Your task to perform on an android device: Search for Italian restaurants on Maps Image 0: 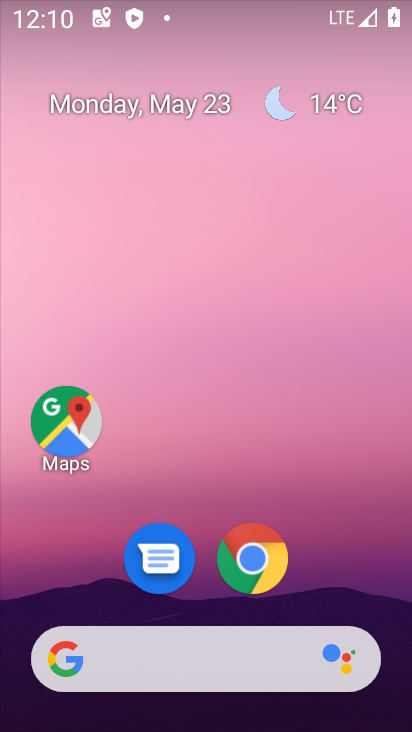
Step 0: click (62, 424)
Your task to perform on an android device: Search for Italian restaurants on Maps Image 1: 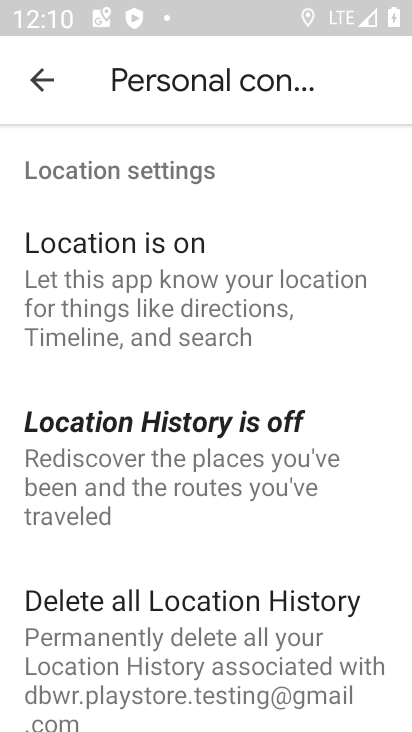
Step 1: click (34, 81)
Your task to perform on an android device: Search for Italian restaurants on Maps Image 2: 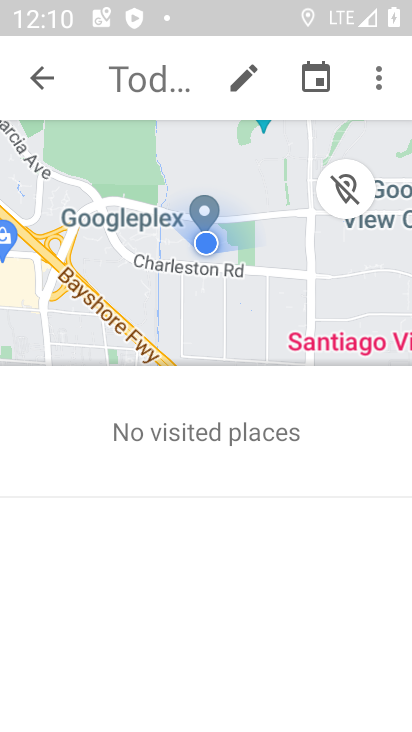
Step 2: click (39, 86)
Your task to perform on an android device: Search for Italian restaurants on Maps Image 3: 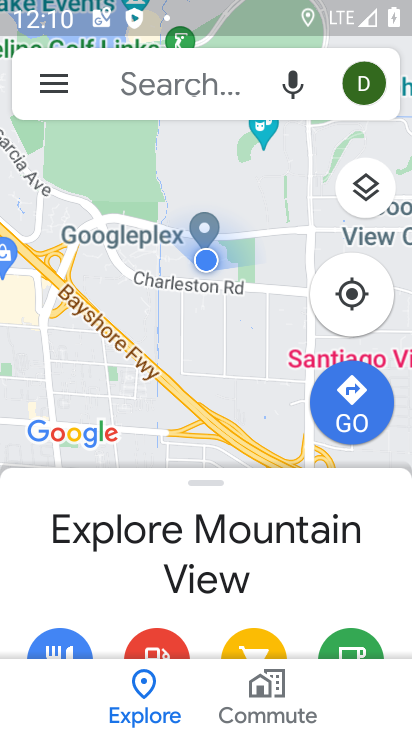
Step 3: click (136, 88)
Your task to perform on an android device: Search for Italian restaurants on Maps Image 4: 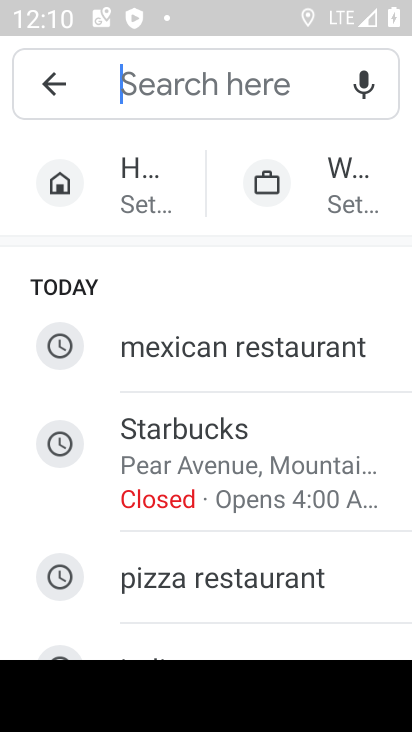
Step 4: type "italian restaurant"
Your task to perform on an android device: Search for Italian restaurants on Maps Image 5: 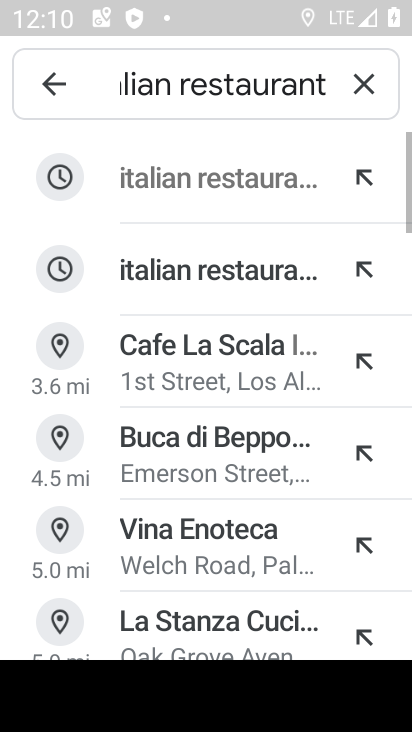
Step 5: click (168, 180)
Your task to perform on an android device: Search for Italian restaurants on Maps Image 6: 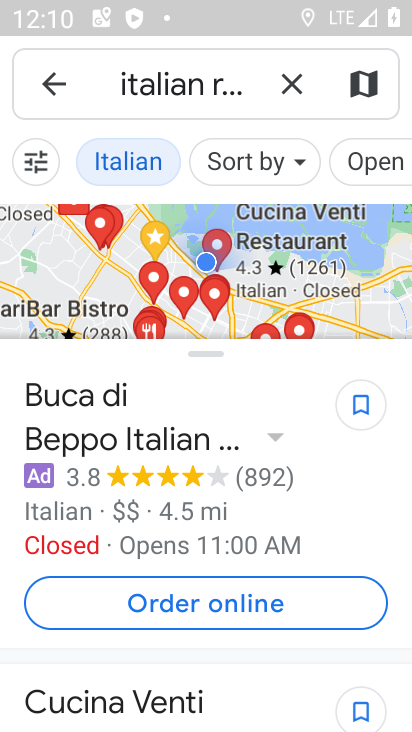
Step 6: task complete